Your task to perform on an android device: snooze an email in the gmail app Image 0: 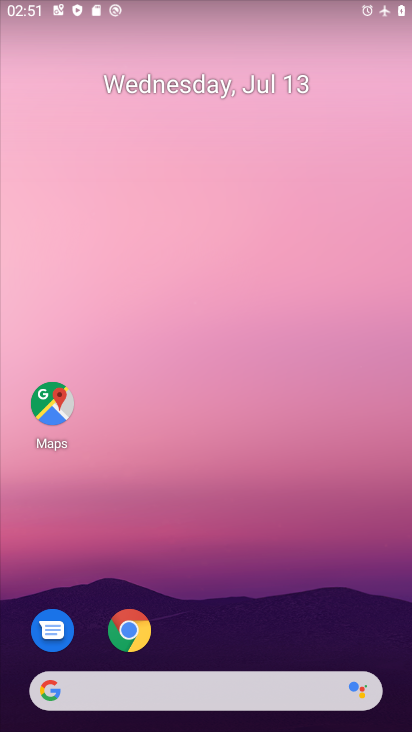
Step 0: drag from (190, 634) to (166, 200)
Your task to perform on an android device: snooze an email in the gmail app Image 1: 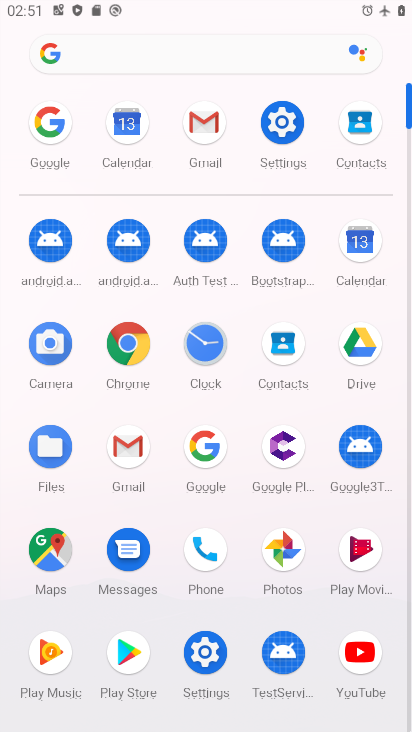
Step 1: click (204, 159)
Your task to perform on an android device: snooze an email in the gmail app Image 2: 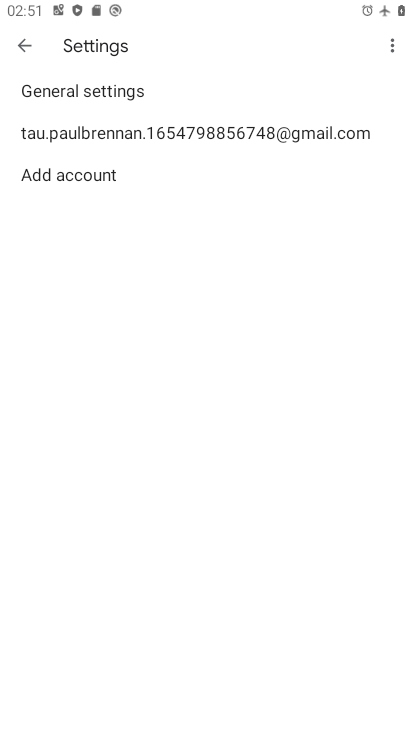
Step 2: click (18, 49)
Your task to perform on an android device: snooze an email in the gmail app Image 3: 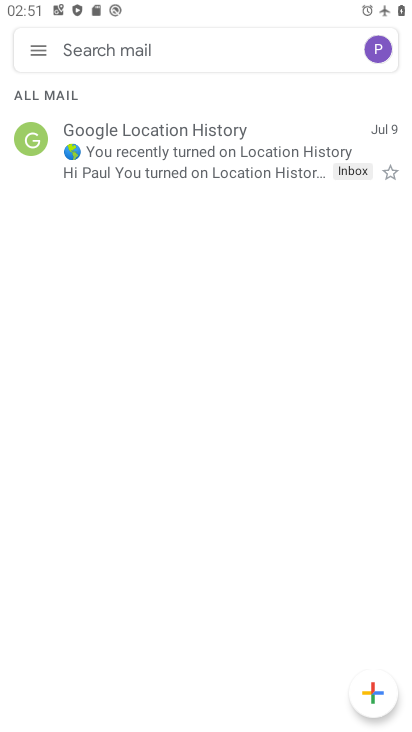
Step 3: click (186, 159)
Your task to perform on an android device: snooze an email in the gmail app Image 4: 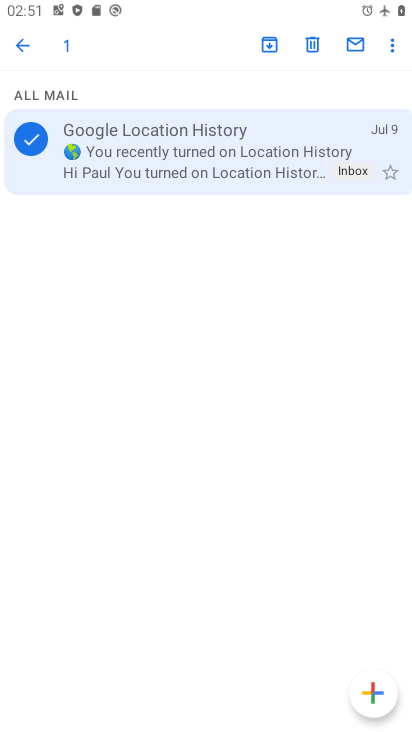
Step 4: click (386, 50)
Your task to perform on an android device: snooze an email in the gmail app Image 5: 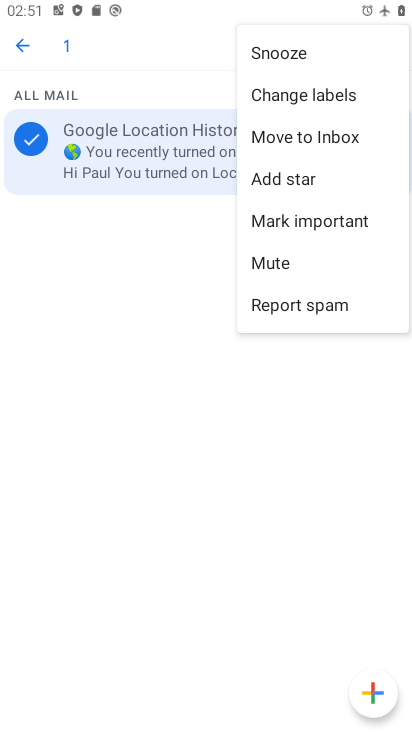
Step 5: click (313, 56)
Your task to perform on an android device: snooze an email in the gmail app Image 6: 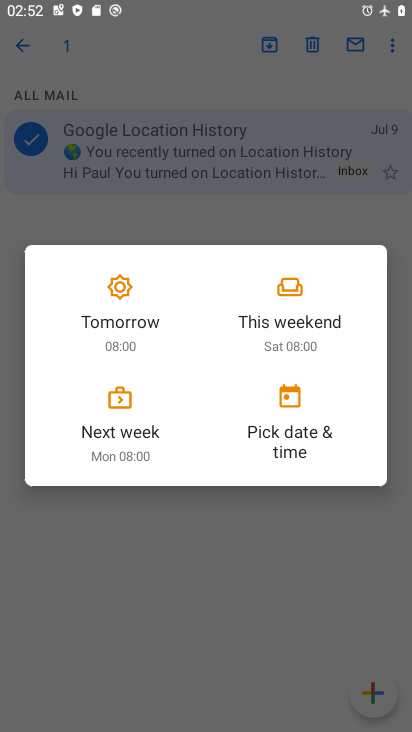
Step 6: task complete